Your task to perform on an android device: check storage Image 0: 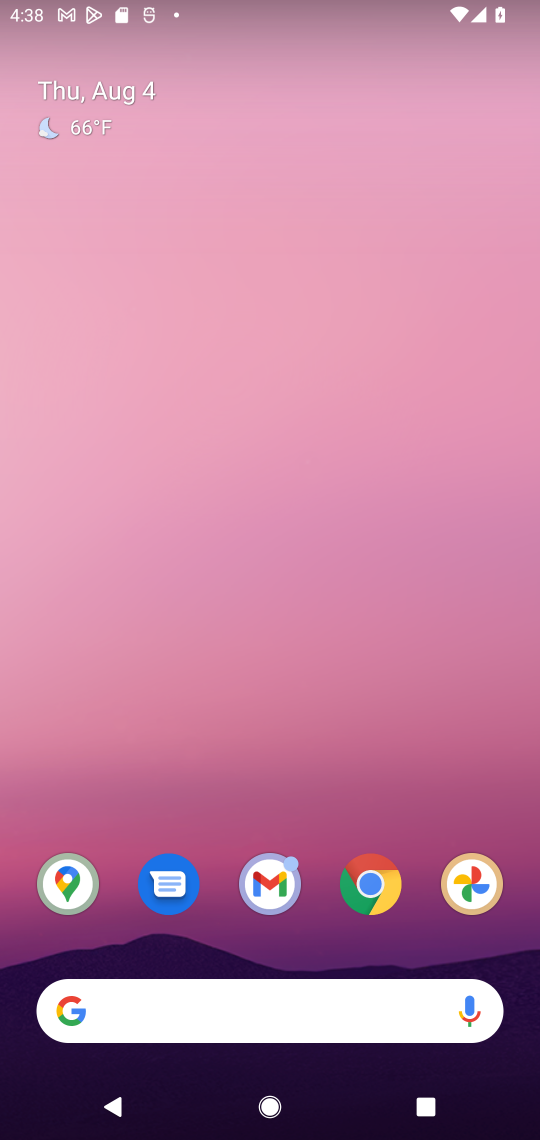
Step 0: drag from (309, 945) to (305, 0)
Your task to perform on an android device: check storage Image 1: 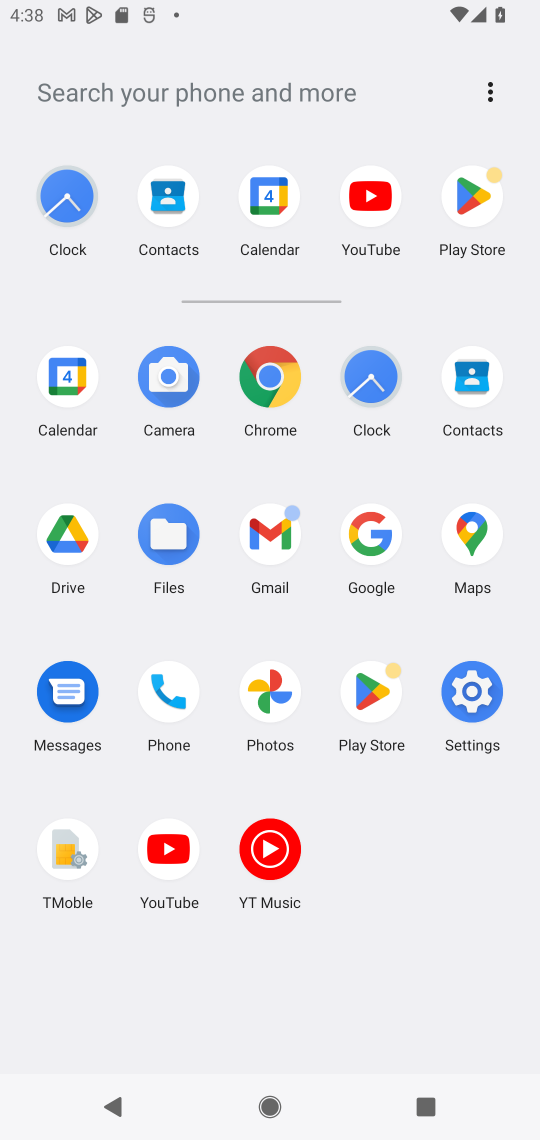
Step 1: click (475, 690)
Your task to perform on an android device: check storage Image 2: 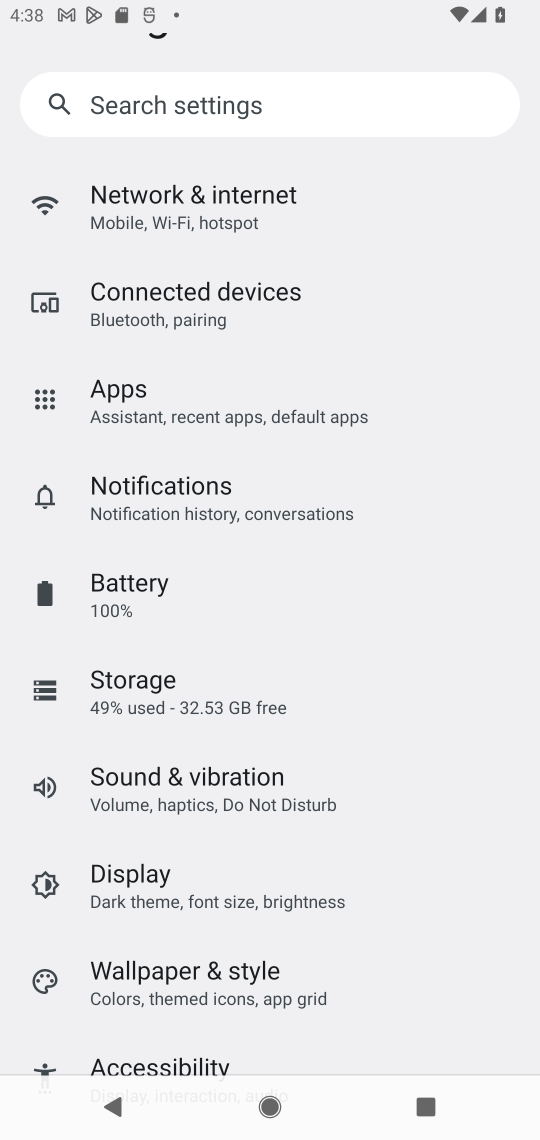
Step 2: click (210, 695)
Your task to perform on an android device: check storage Image 3: 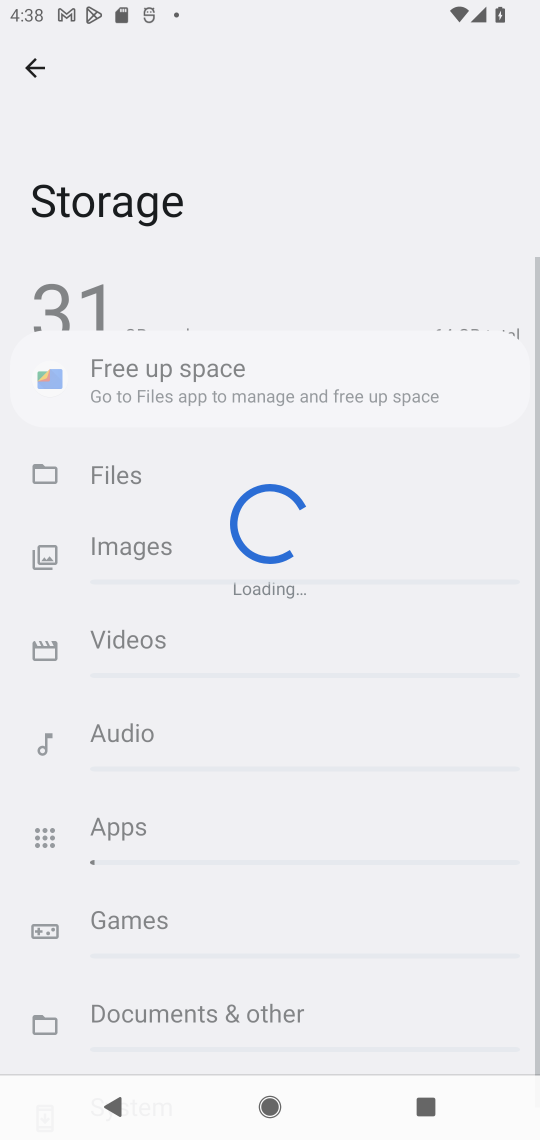
Step 3: task complete